Your task to perform on an android device: turn on location history Image 0: 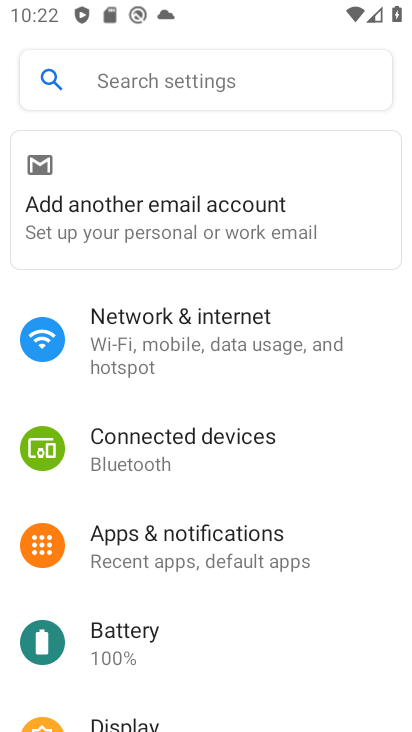
Step 0: press back button
Your task to perform on an android device: turn on location history Image 1: 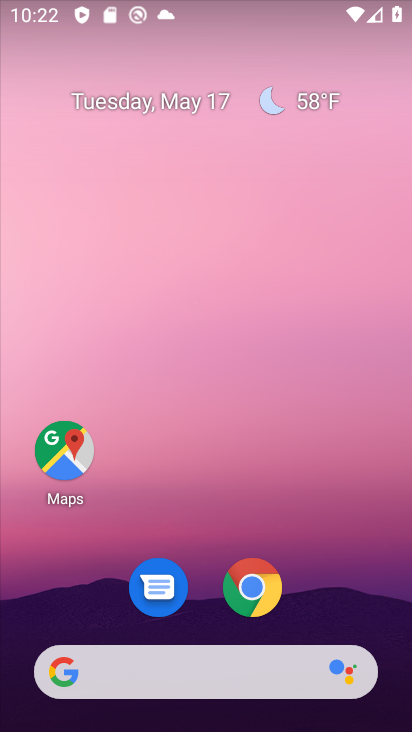
Step 1: drag from (336, 590) to (295, 135)
Your task to perform on an android device: turn on location history Image 2: 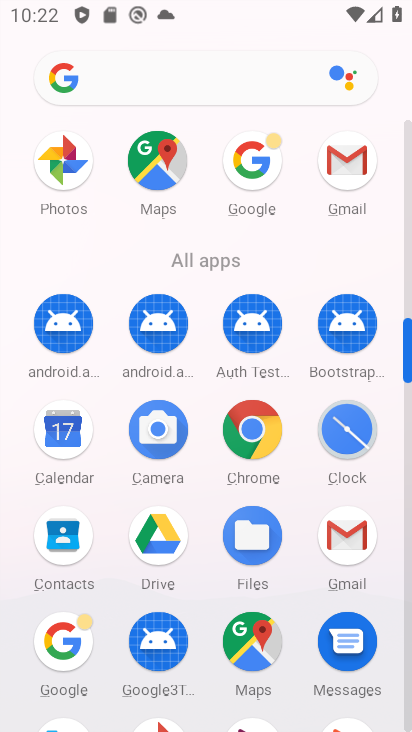
Step 2: drag from (201, 495) to (205, 305)
Your task to perform on an android device: turn on location history Image 3: 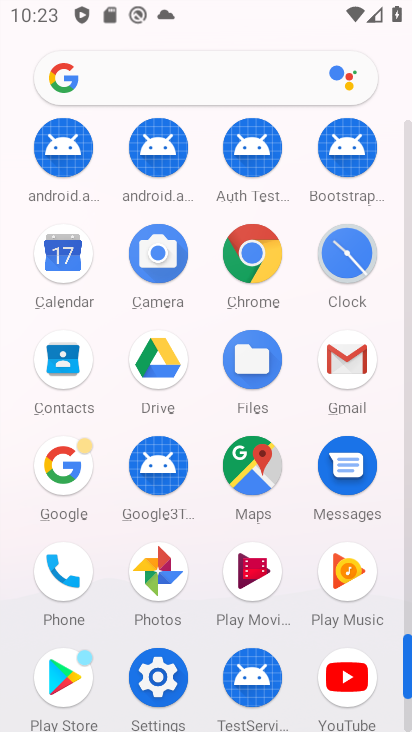
Step 3: click (157, 676)
Your task to perform on an android device: turn on location history Image 4: 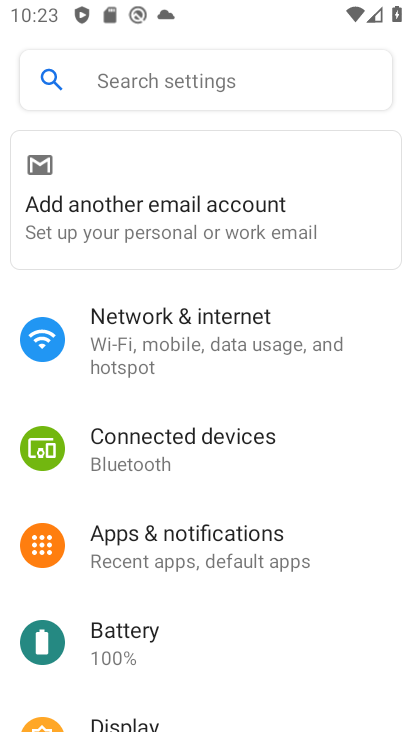
Step 4: drag from (197, 499) to (219, 390)
Your task to perform on an android device: turn on location history Image 5: 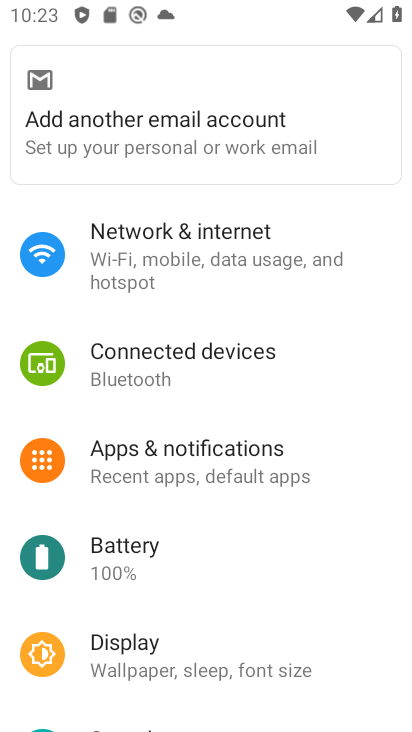
Step 5: drag from (213, 599) to (232, 449)
Your task to perform on an android device: turn on location history Image 6: 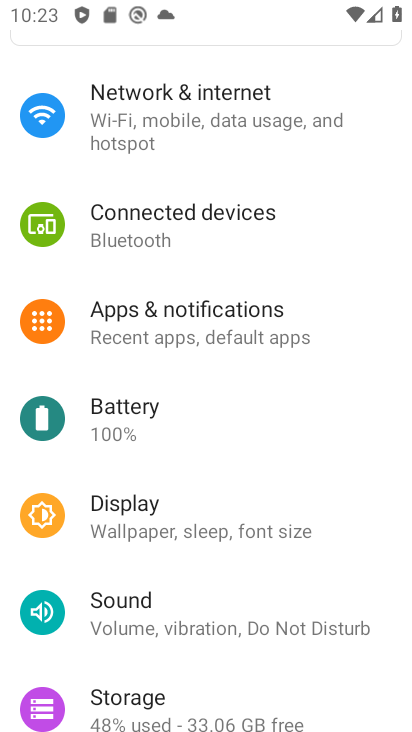
Step 6: drag from (182, 568) to (192, 417)
Your task to perform on an android device: turn on location history Image 7: 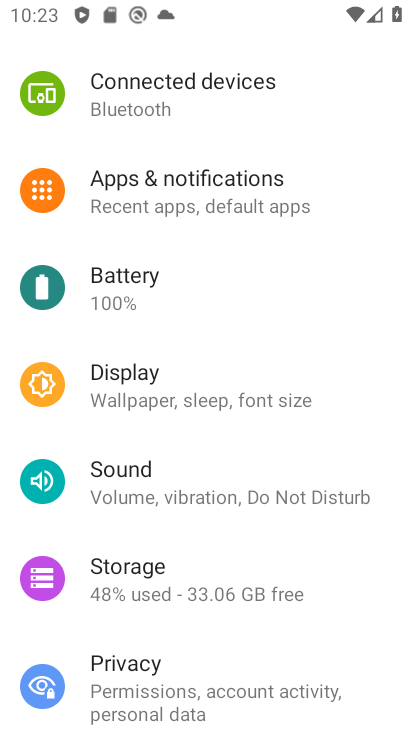
Step 7: drag from (186, 561) to (189, 426)
Your task to perform on an android device: turn on location history Image 8: 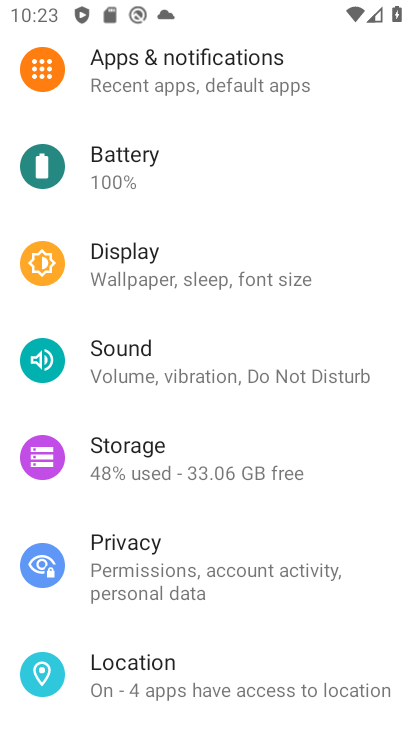
Step 8: drag from (197, 522) to (215, 387)
Your task to perform on an android device: turn on location history Image 9: 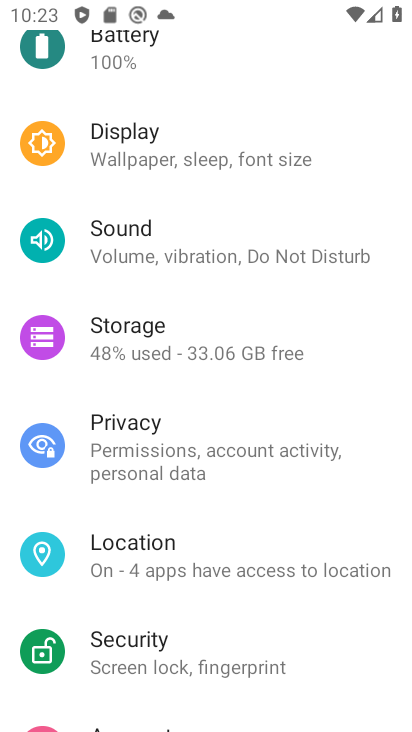
Step 9: click (126, 540)
Your task to perform on an android device: turn on location history Image 10: 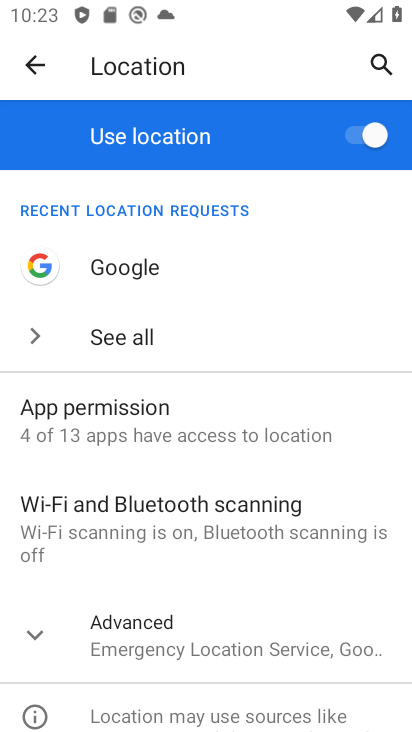
Step 10: drag from (183, 486) to (231, 361)
Your task to perform on an android device: turn on location history Image 11: 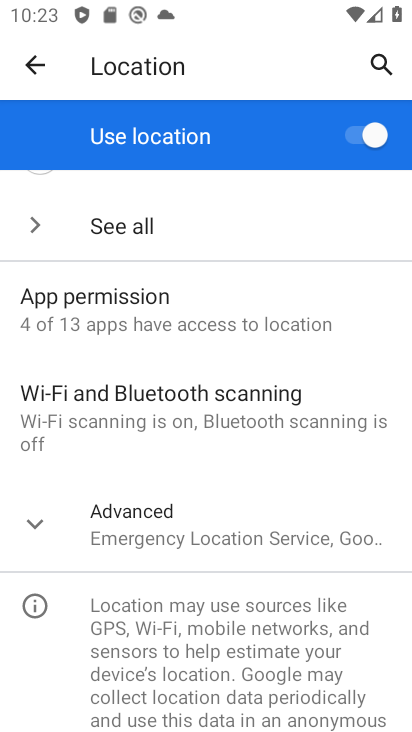
Step 11: click (216, 527)
Your task to perform on an android device: turn on location history Image 12: 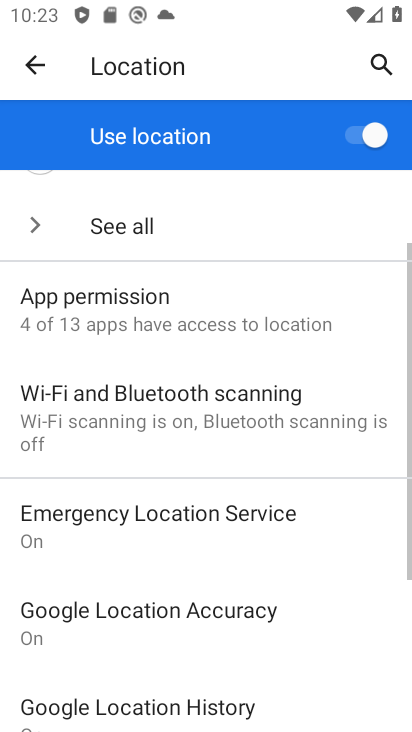
Step 12: task complete